Your task to perform on an android device: turn on the 12-hour format for clock Image 0: 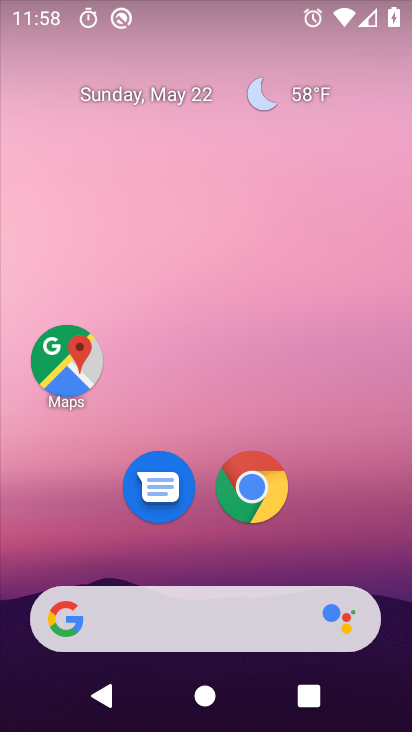
Step 0: drag from (341, 449) to (344, 200)
Your task to perform on an android device: turn on the 12-hour format for clock Image 1: 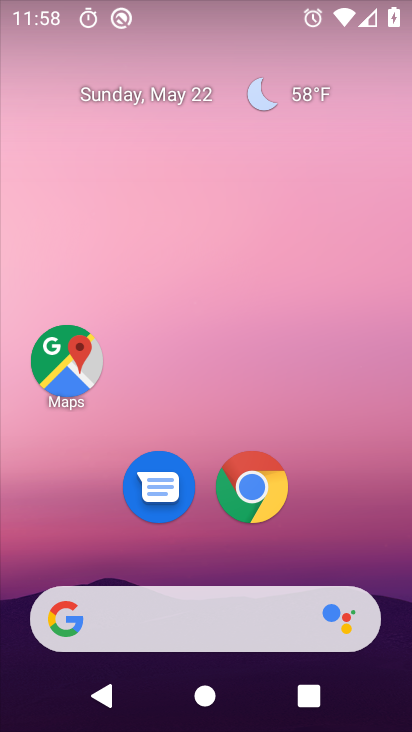
Step 1: drag from (337, 547) to (307, 228)
Your task to perform on an android device: turn on the 12-hour format for clock Image 2: 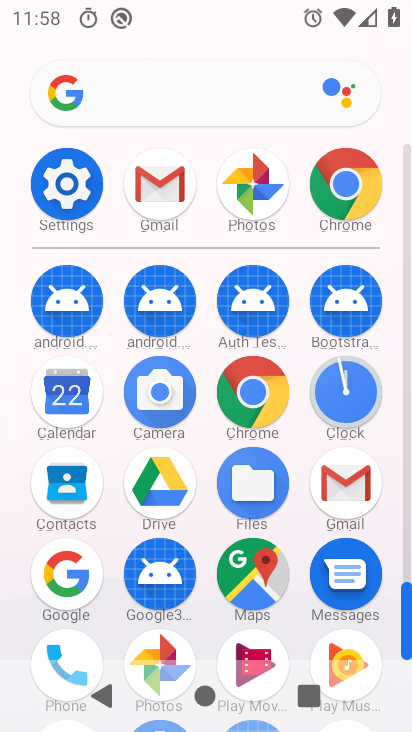
Step 2: click (337, 406)
Your task to perform on an android device: turn on the 12-hour format for clock Image 3: 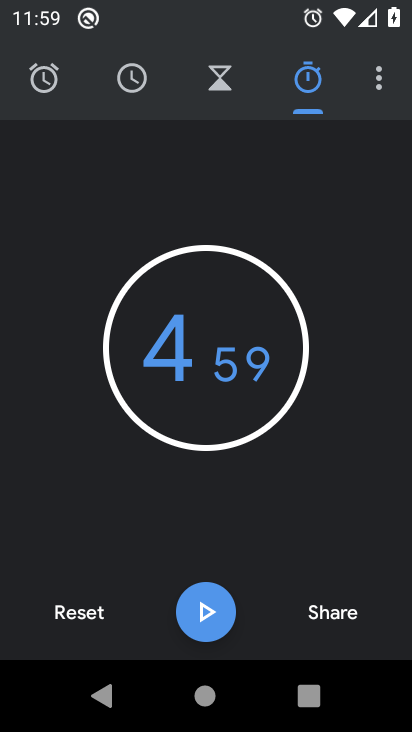
Step 3: drag from (369, 79) to (182, 169)
Your task to perform on an android device: turn on the 12-hour format for clock Image 4: 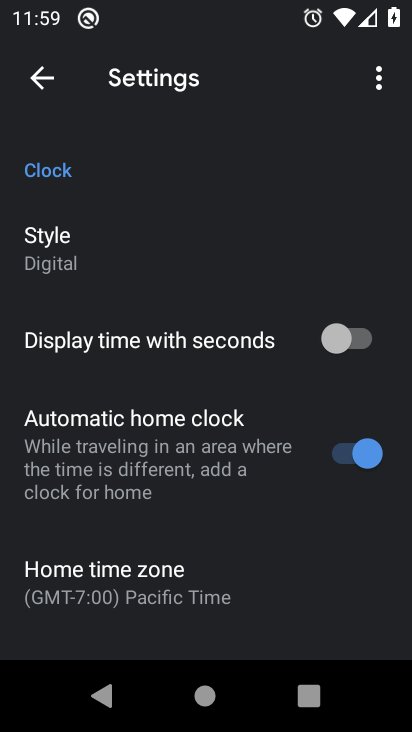
Step 4: drag from (223, 557) to (223, 236)
Your task to perform on an android device: turn on the 12-hour format for clock Image 5: 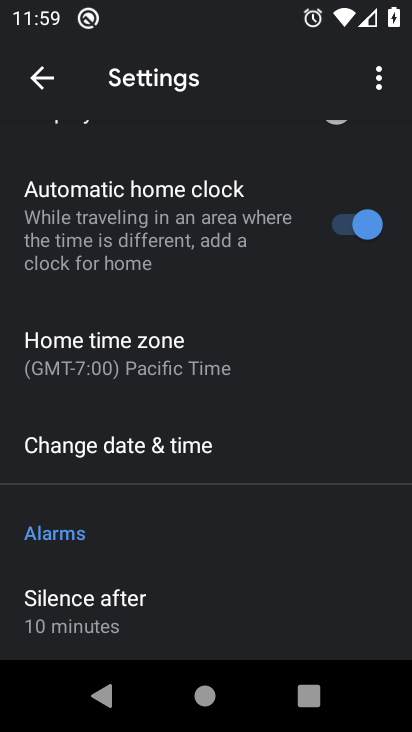
Step 5: drag from (238, 523) to (243, 277)
Your task to perform on an android device: turn on the 12-hour format for clock Image 6: 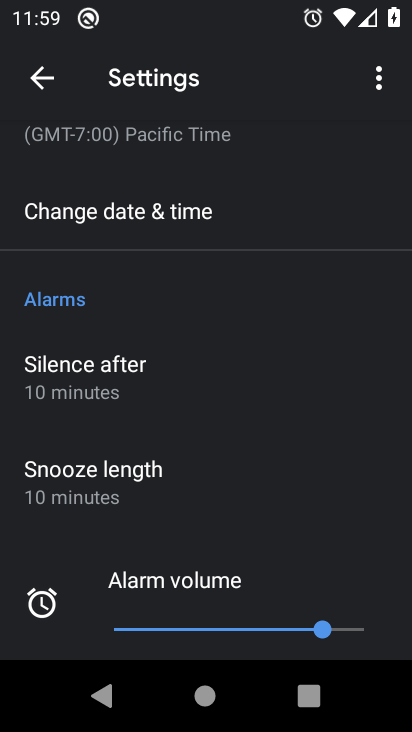
Step 6: click (228, 234)
Your task to perform on an android device: turn on the 12-hour format for clock Image 7: 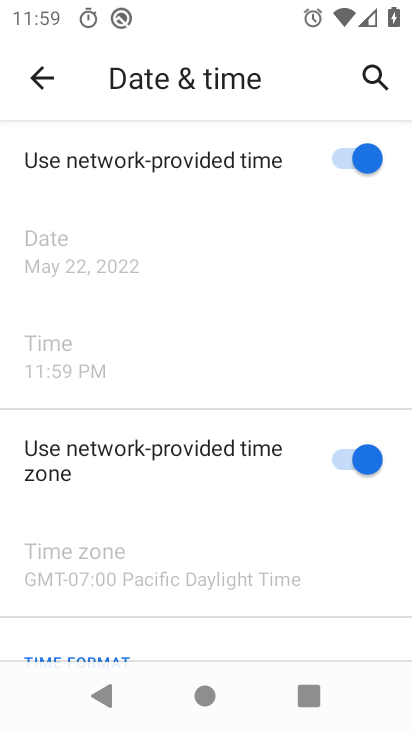
Step 7: task complete